Your task to perform on an android device: star an email in the gmail app Image 0: 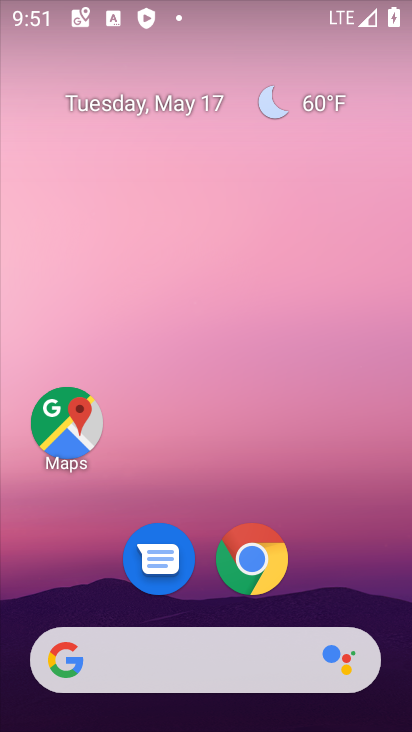
Step 0: drag from (210, 603) to (196, 191)
Your task to perform on an android device: star an email in the gmail app Image 1: 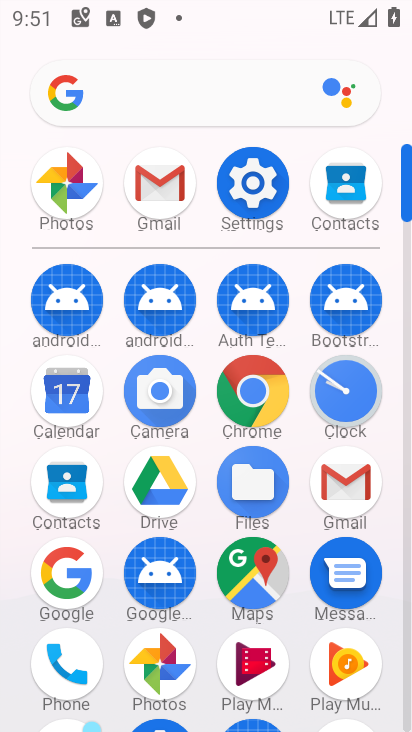
Step 1: click (173, 196)
Your task to perform on an android device: star an email in the gmail app Image 2: 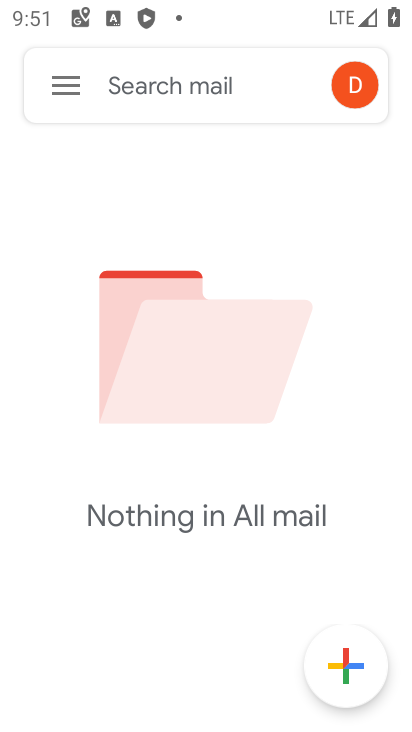
Step 2: click (71, 77)
Your task to perform on an android device: star an email in the gmail app Image 3: 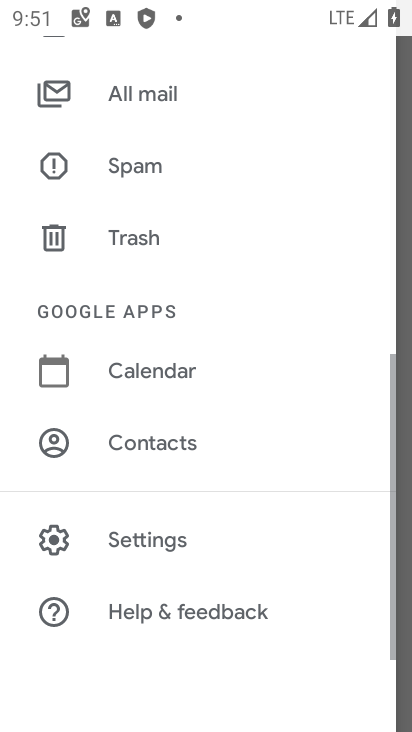
Step 3: click (177, 90)
Your task to perform on an android device: star an email in the gmail app Image 4: 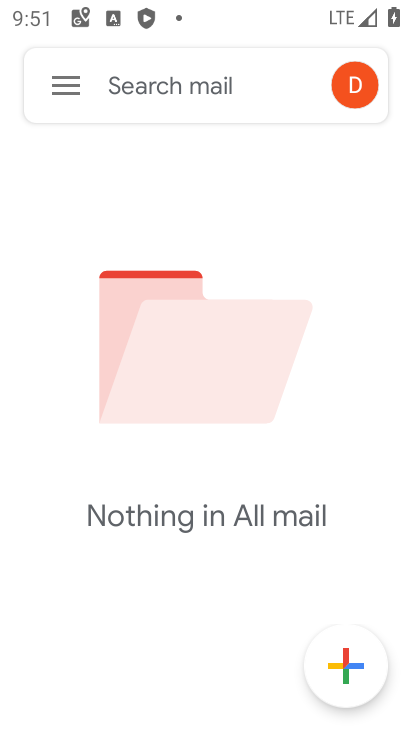
Step 4: task complete